Your task to perform on an android device: allow notifications from all sites in the chrome app Image 0: 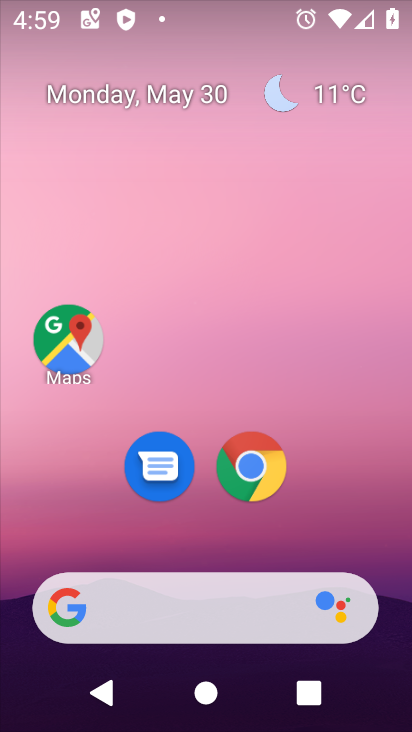
Step 0: drag from (318, 470) to (234, 128)
Your task to perform on an android device: allow notifications from all sites in the chrome app Image 1: 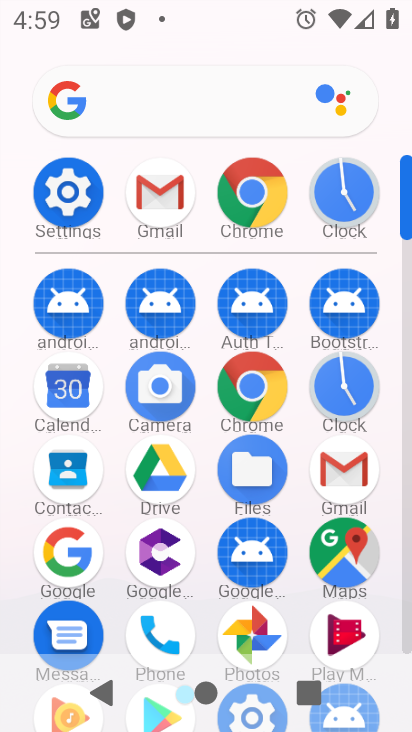
Step 1: click (245, 395)
Your task to perform on an android device: allow notifications from all sites in the chrome app Image 2: 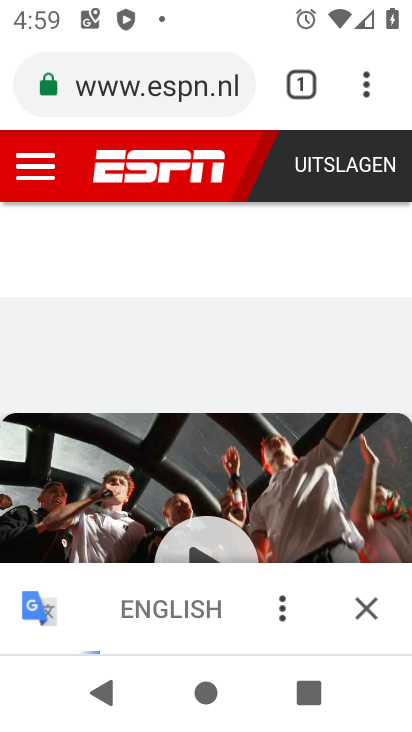
Step 2: drag from (379, 75) to (185, 519)
Your task to perform on an android device: allow notifications from all sites in the chrome app Image 3: 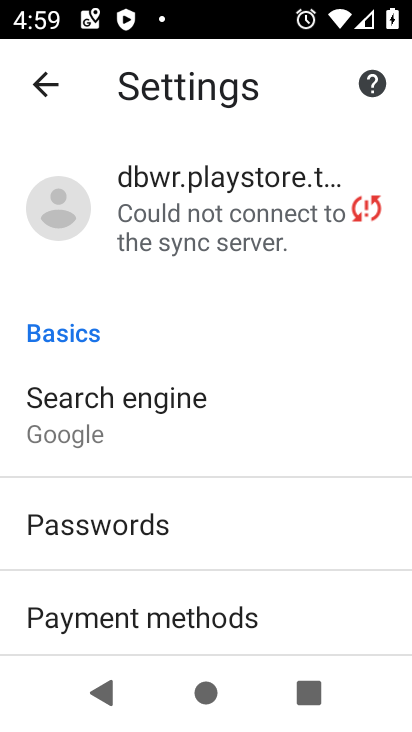
Step 3: drag from (206, 488) to (193, 148)
Your task to perform on an android device: allow notifications from all sites in the chrome app Image 4: 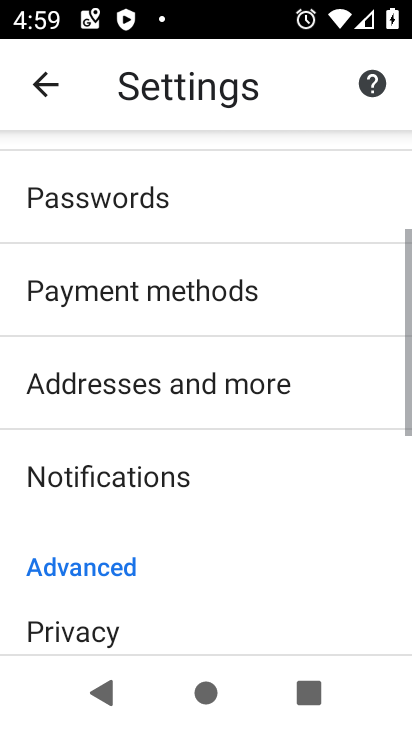
Step 4: click (193, 148)
Your task to perform on an android device: allow notifications from all sites in the chrome app Image 5: 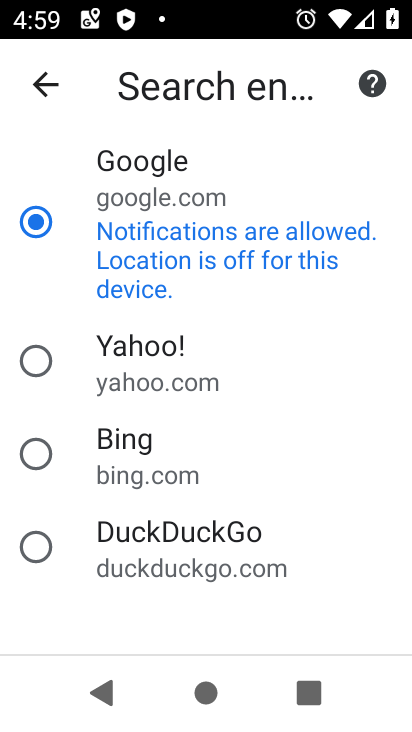
Step 5: click (44, 73)
Your task to perform on an android device: allow notifications from all sites in the chrome app Image 6: 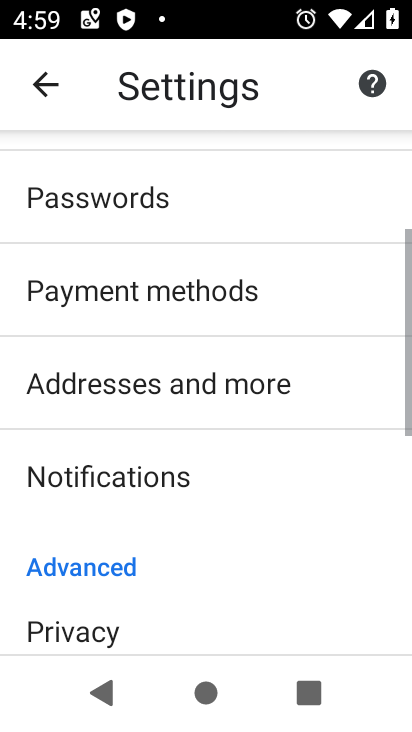
Step 6: drag from (220, 449) to (278, 212)
Your task to perform on an android device: allow notifications from all sites in the chrome app Image 7: 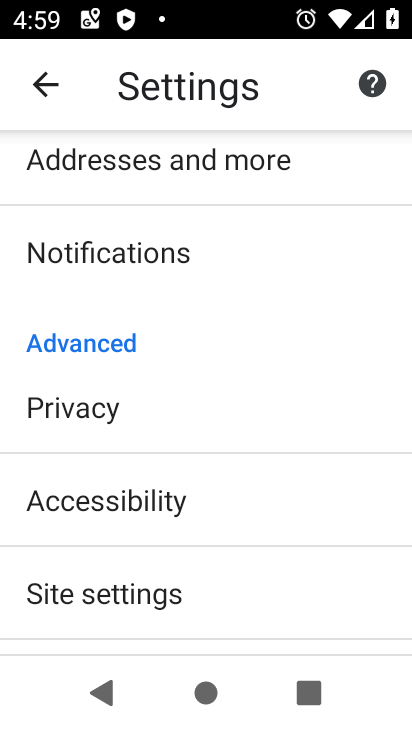
Step 7: drag from (239, 470) to (214, 193)
Your task to perform on an android device: allow notifications from all sites in the chrome app Image 8: 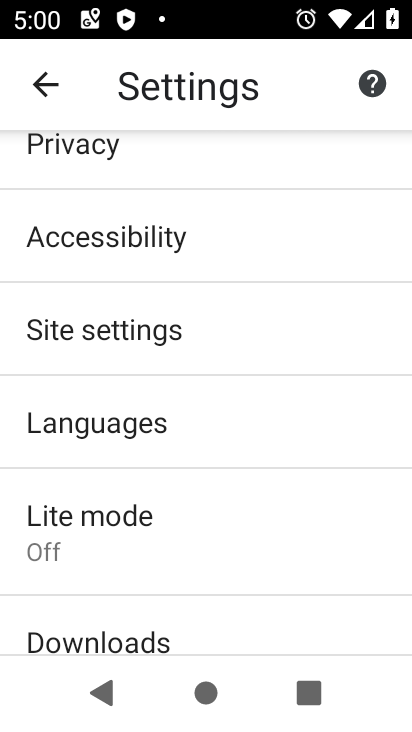
Step 8: drag from (184, 510) to (244, 479)
Your task to perform on an android device: allow notifications from all sites in the chrome app Image 9: 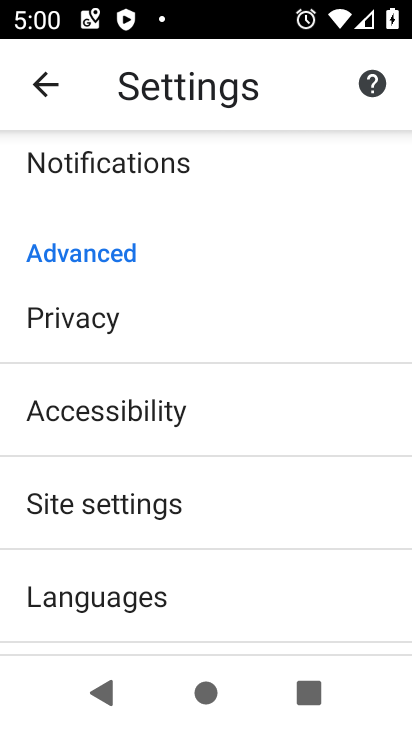
Step 9: click (152, 499)
Your task to perform on an android device: allow notifications from all sites in the chrome app Image 10: 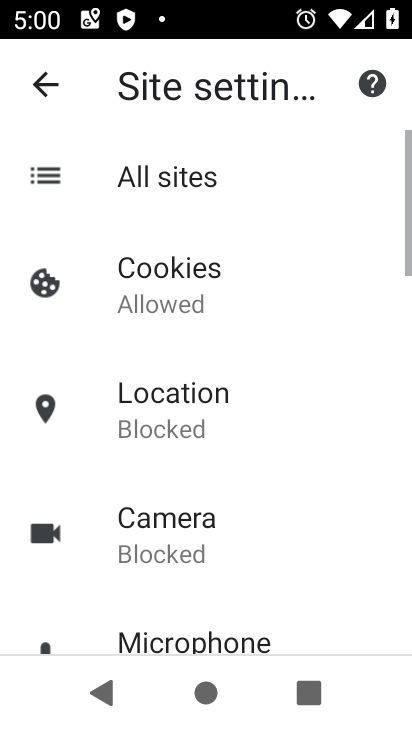
Step 10: drag from (247, 500) to (199, 96)
Your task to perform on an android device: allow notifications from all sites in the chrome app Image 11: 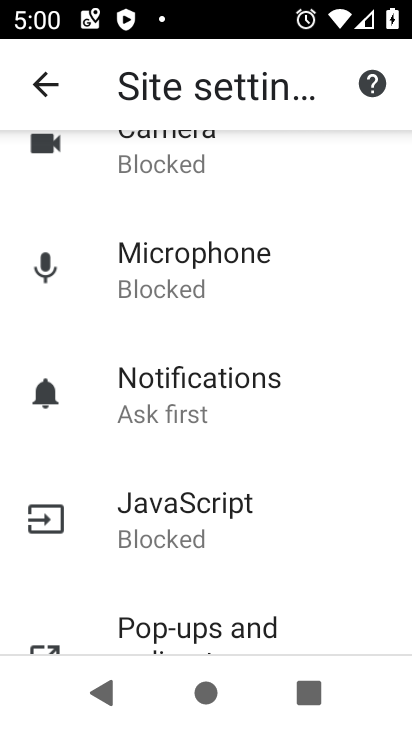
Step 11: drag from (227, 437) to (307, 155)
Your task to perform on an android device: allow notifications from all sites in the chrome app Image 12: 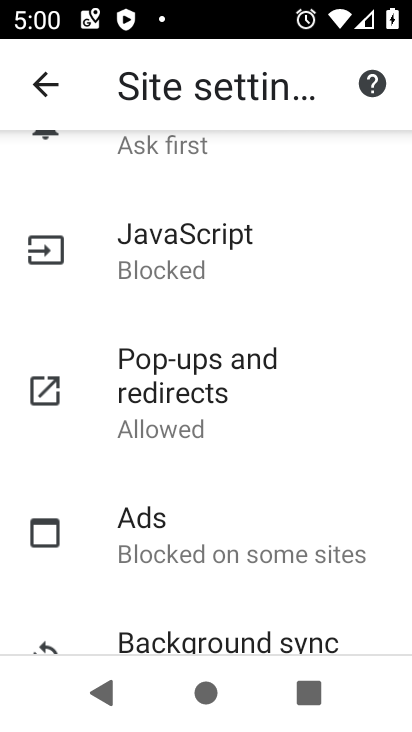
Step 12: drag from (244, 531) to (255, 143)
Your task to perform on an android device: allow notifications from all sites in the chrome app Image 13: 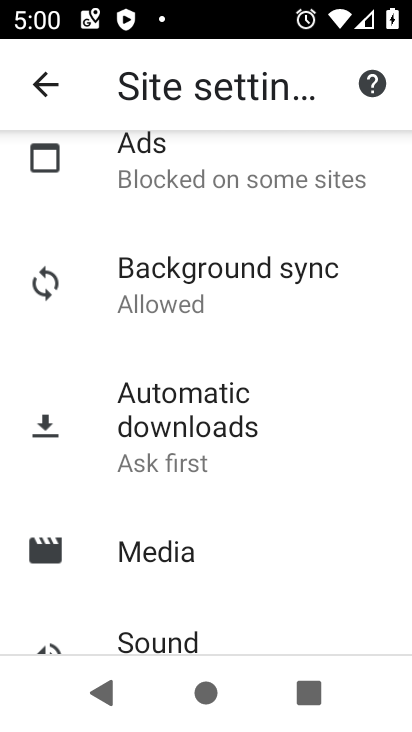
Step 13: drag from (272, 507) to (244, 136)
Your task to perform on an android device: allow notifications from all sites in the chrome app Image 14: 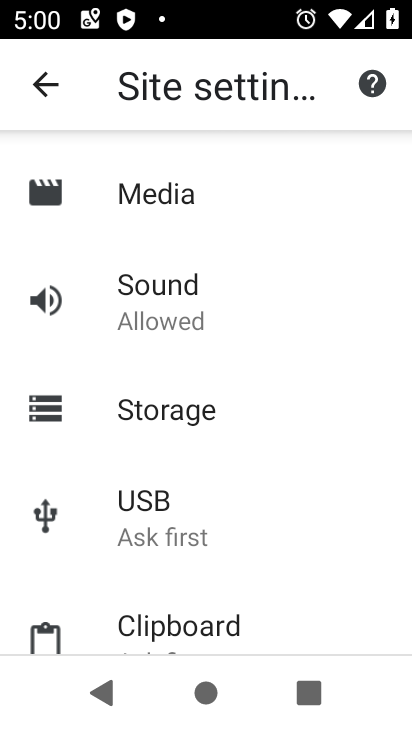
Step 14: drag from (214, 577) to (188, 99)
Your task to perform on an android device: allow notifications from all sites in the chrome app Image 15: 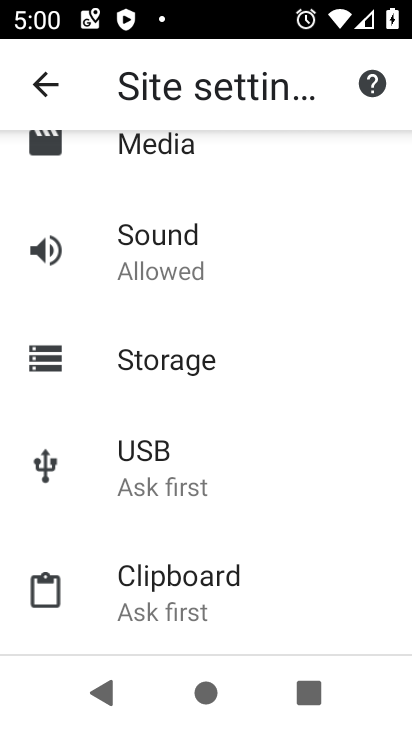
Step 15: drag from (273, 547) to (252, 144)
Your task to perform on an android device: allow notifications from all sites in the chrome app Image 16: 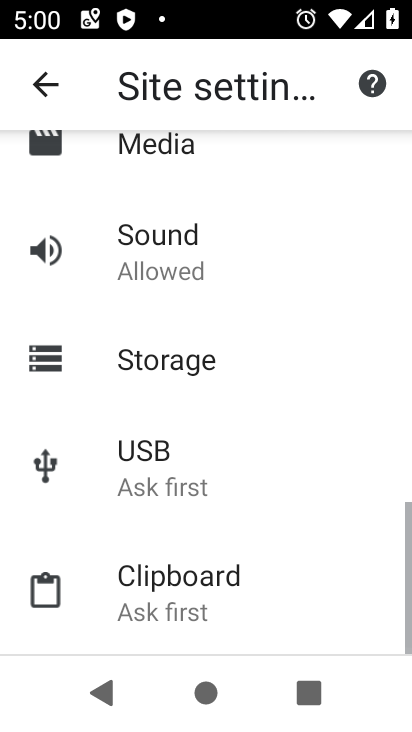
Step 16: drag from (231, 275) to (270, 672)
Your task to perform on an android device: allow notifications from all sites in the chrome app Image 17: 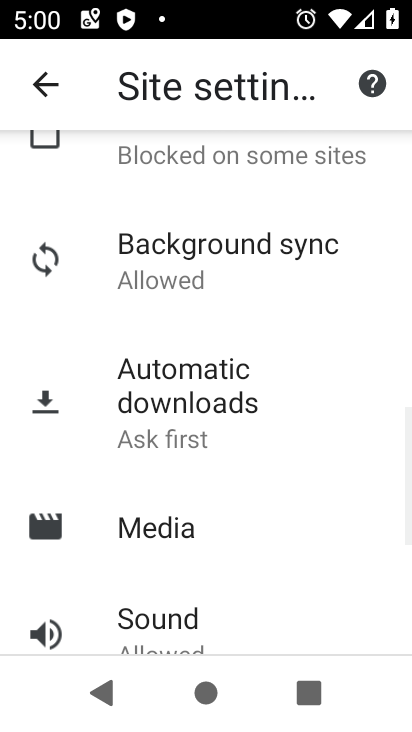
Step 17: drag from (246, 331) to (329, 728)
Your task to perform on an android device: allow notifications from all sites in the chrome app Image 18: 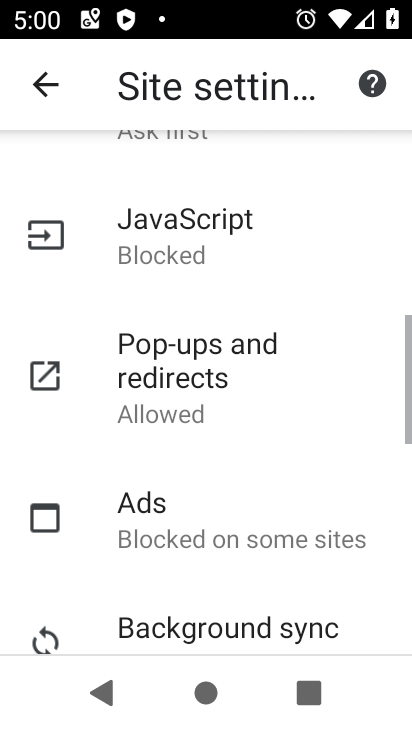
Step 18: drag from (326, 374) to (300, 689)
Your task to perform on an android device: allow notifications from all sites in the chrome app Image 19: 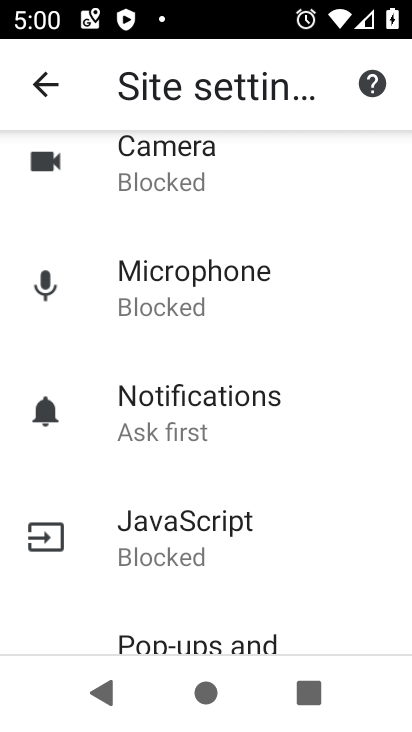
Step 19: click (280, 398)
Your task to perform on an android device: allow notifications from all sites in the chrome app Image 20: 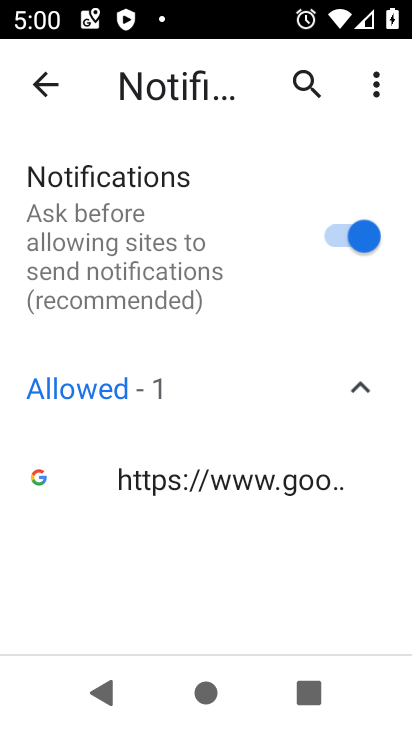
Step 20: task complete